Your task to perform on an android device: What's on my calendar tomorrow? Image 0: 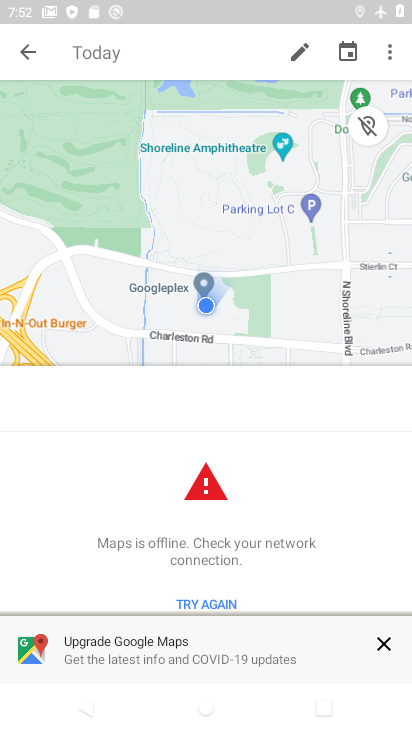
Step 0: press home button
Your task to perform on an android device: What's on my calendar tomorrow? Image 1: 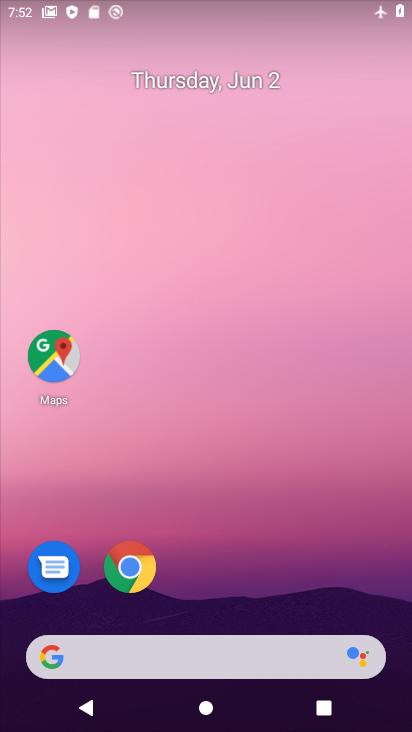
Step 1: drag from (259, 560) to (251, 152)
Your task to perform on an android device: What's on my calendar tomorrow? Image 2: 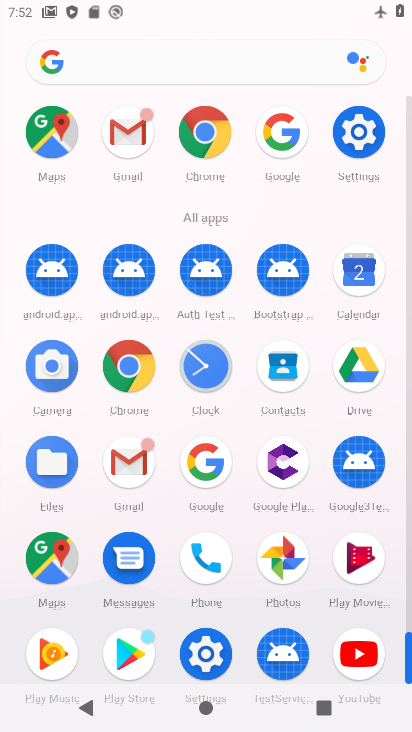
Step 2: click (358, 276)
Your task to perform on an android device: What's on my calendar tomorrow? Image 3: 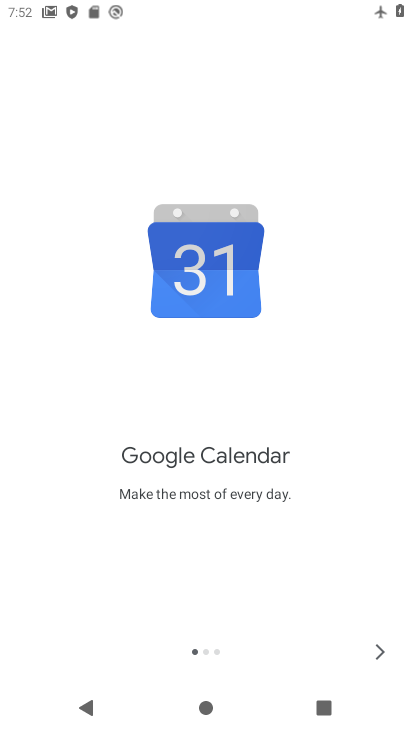
Step 3: click (379, 647)
Your task to perform on an android device: What's on my calendar tomorrow? Image 4: 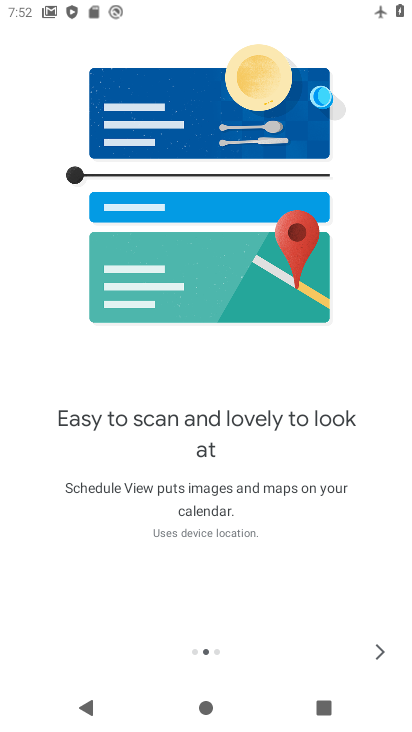
Step 4: click (379, 647)
Your task to perform on an android device: What's on my calendar tomorrow? Image 5: 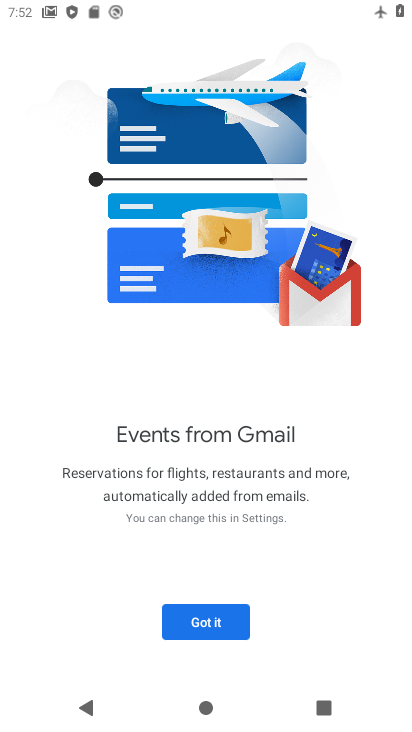
Step 5: click (198, 625)
Your task to perform on an android device: What's on my calendar tomorrow? Image 6: 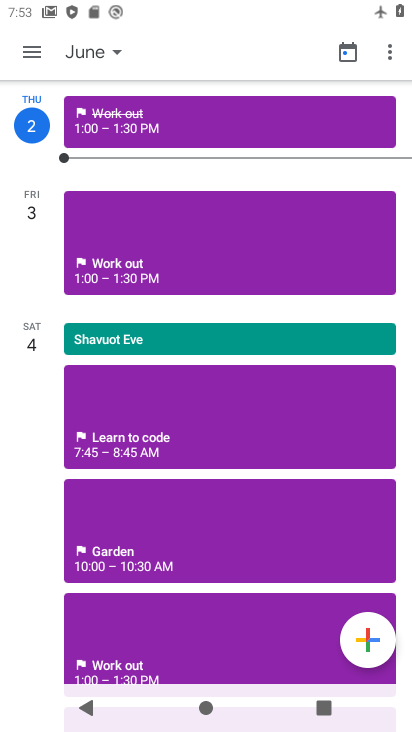
Step 6: click (114, 51)
Your task to perform on an android device: What's on my calendar tomorrow? Image 7: 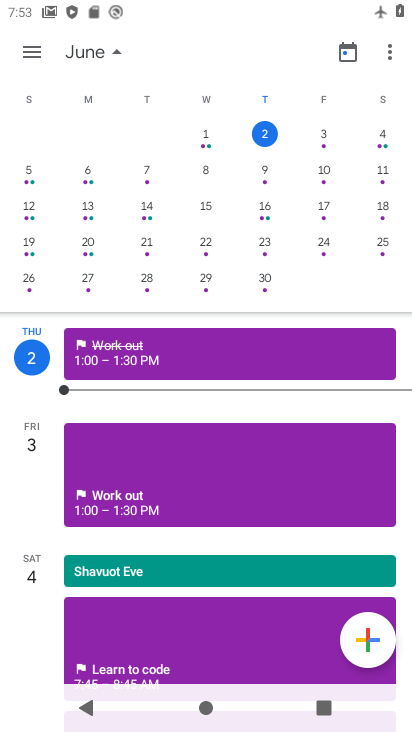
Step 7: click (325, 135)
Your task to perform on an android device: What's on my calendar tomorrow? Image 8: 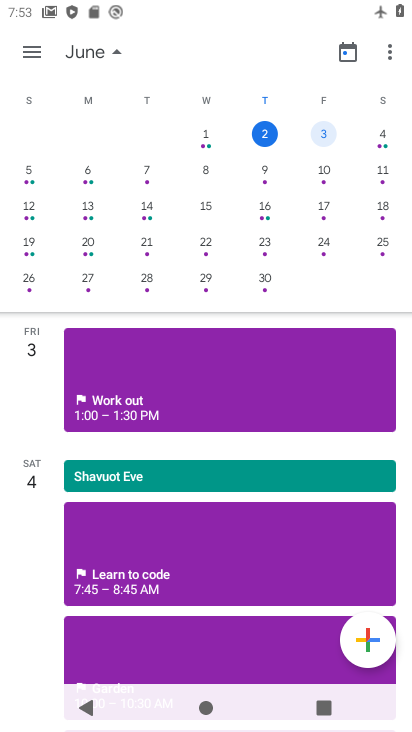
Step 8: click (24, 46)
Your task to perform on an android device: What's on my calendar tomorrow? Image 9: 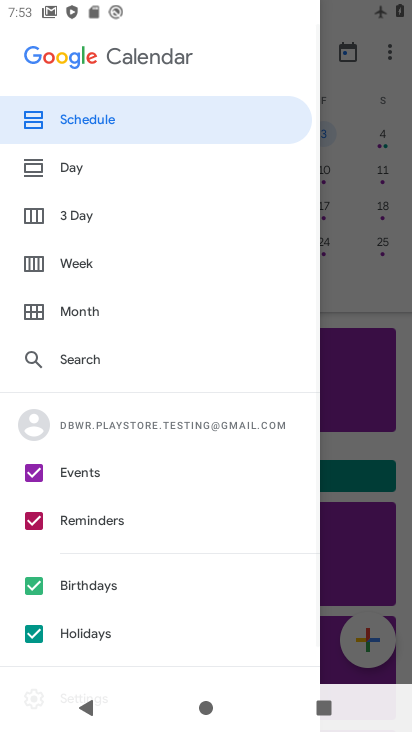
Step 9: click (45, 165)
Your task to perform on an android device: What's on my calendar tomorrow? Image 10: 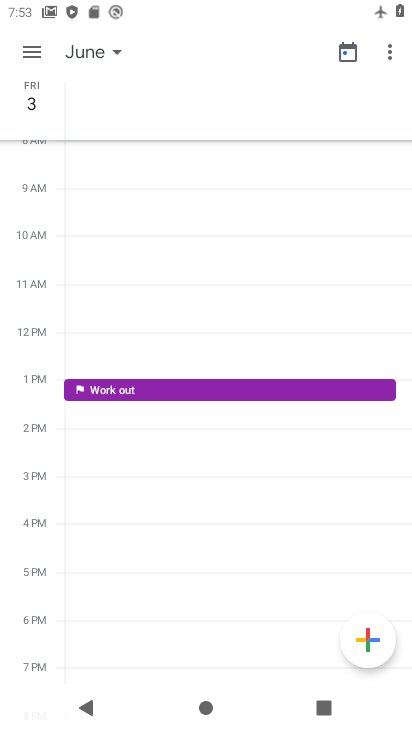
Step 10: task complete